Your task to perform on an android device: turn pop-ups on in chrome Image 0: 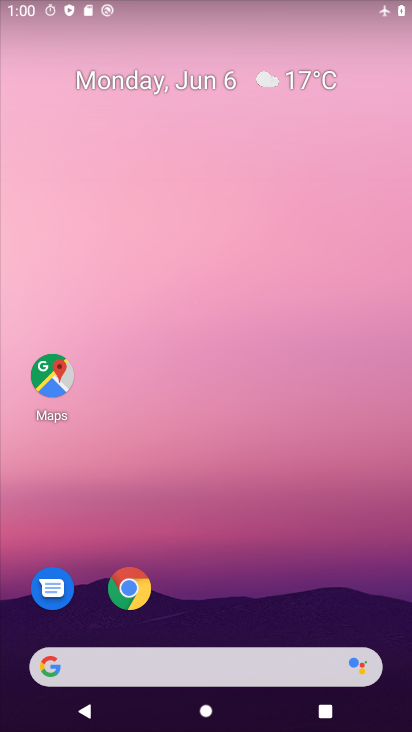
Step 0: drag from (228, 575) to (244, 148)
Your task to perform on an android device: turn pop-ups on in chrome Image 1: 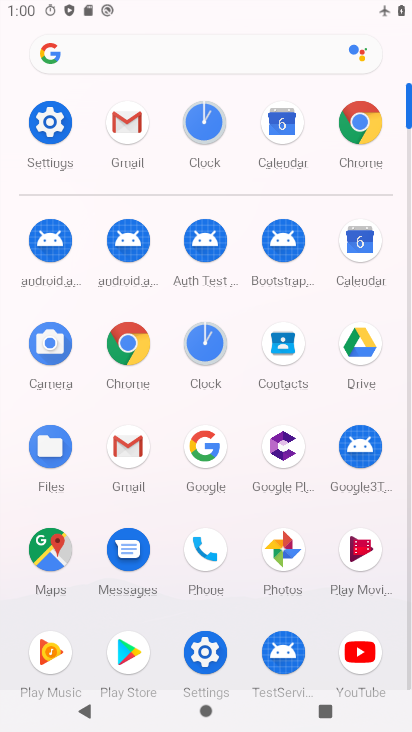
Step 1: click (128, 340)
Your task to perform on an android device: turn pop-ups on in chrome Image 2: 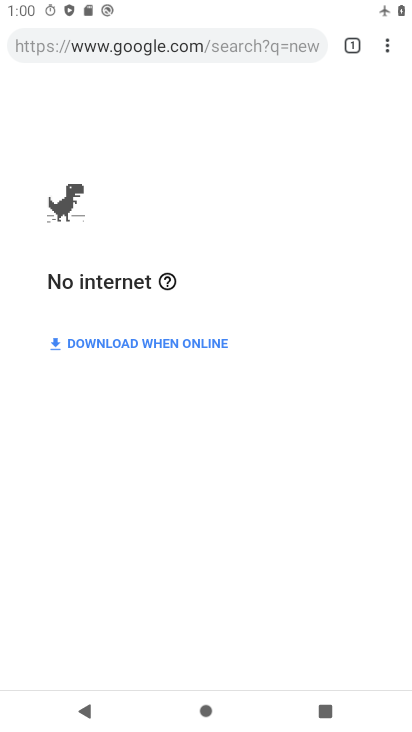
Step 2: drag from (389, 44) to (225, 518)
Your task to perform on an android device: turn pop-ups on in chrome Image 3: 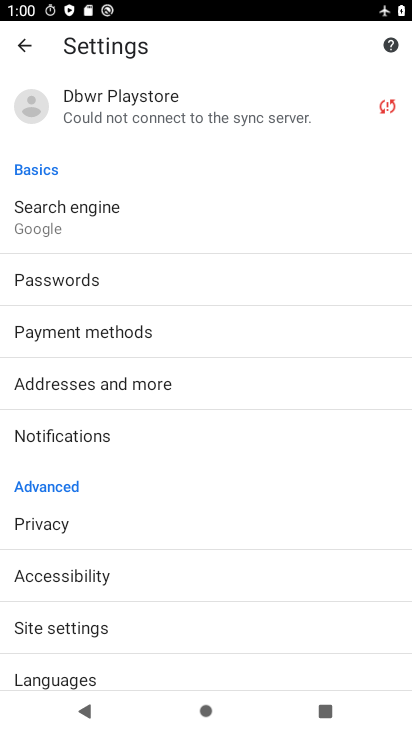
Step 3: drag from (221, 495) to (317, 140)
Your task to perform on an android device: turn pop-ups on in chrome Image 4: 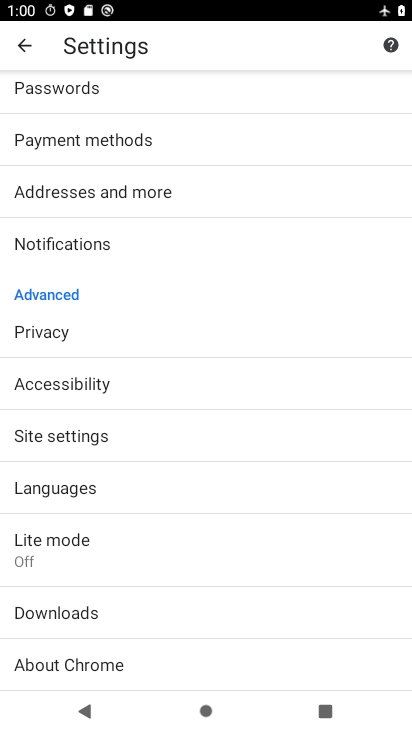
Step 4: click (94, 446)
Your task to perform on an android device: turn pop-ups on in chrome Image 5: 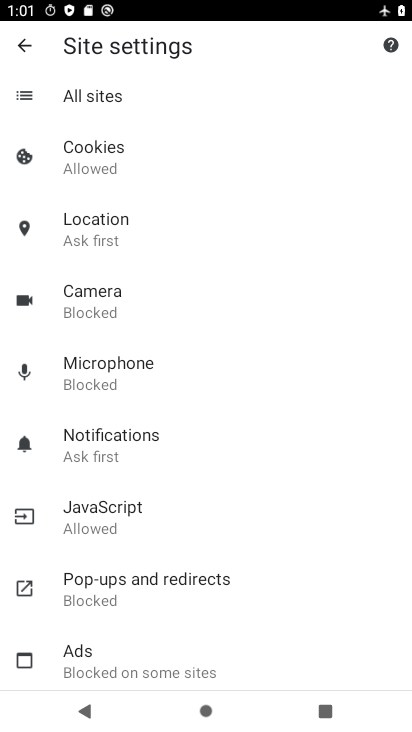
Step 5: click (166, 601)
Your task to perform on an android device: turn pop-ups on in chrome Image 6: 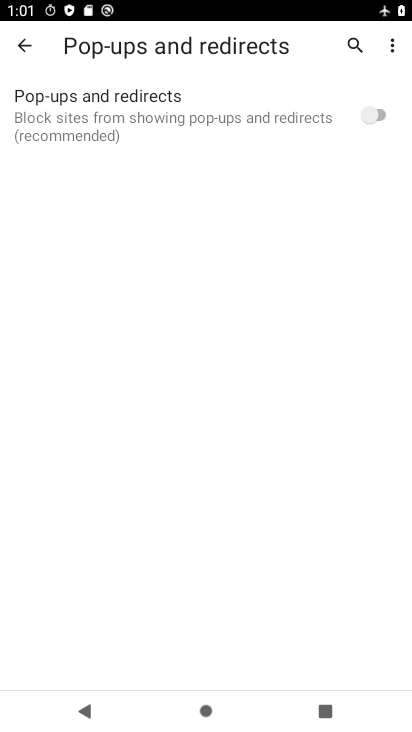
Step 6: click (336, 114)
Your task to perform on an android device: turn pop-ups on in chrome Image 7: 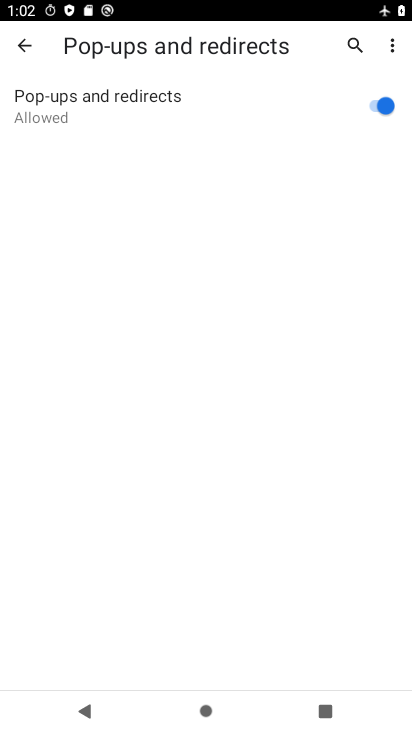
Step 7: task complete